Your task to perform on an android device: allow notifications from all sites in the chrome app Image 0: 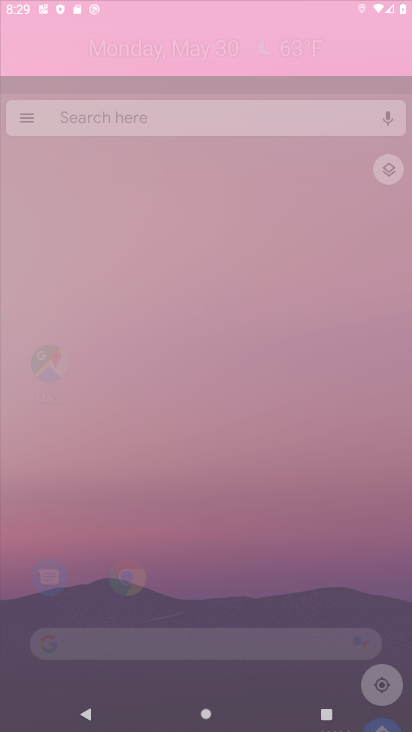
Step 0: click (359, 114)
Your task to perform on an android device: allow notifications from all sites in the chrome app Image 1: 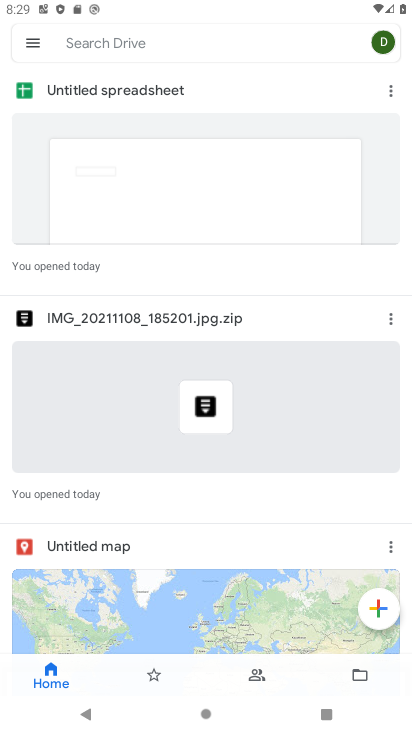
Step 1: press home button
Your task to perform on an android device: allow notifications from all sites in the chrome app Image 2: 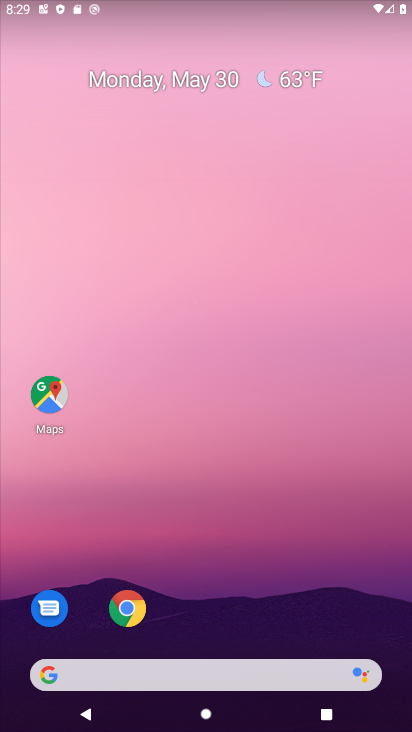
Step 2: click (126, 604)
Your task to perform on an android device: allow notifications from all sites in the chrome app Image 3: 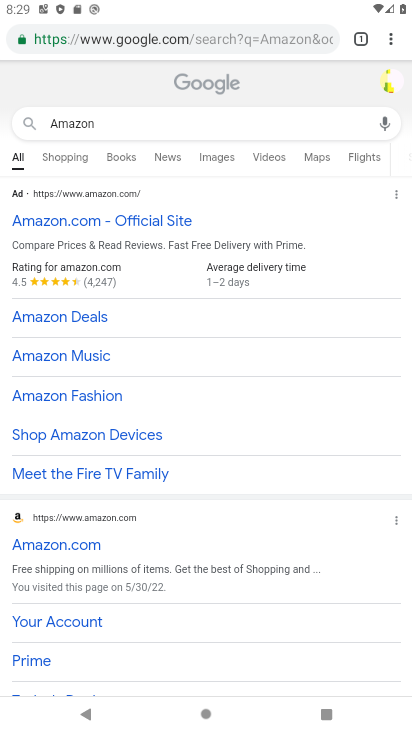
Step 3: click (392, 33)
Your task to perform on an android device: allow notifications from all sites in the chrome app Image 4: 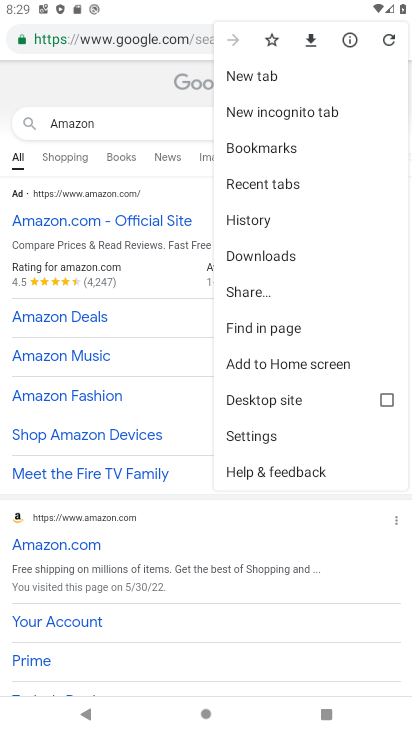
Step 4: click (262, 437)
Your task to perform on an android device: allow notifications from all sites in the chrome app Image 5: 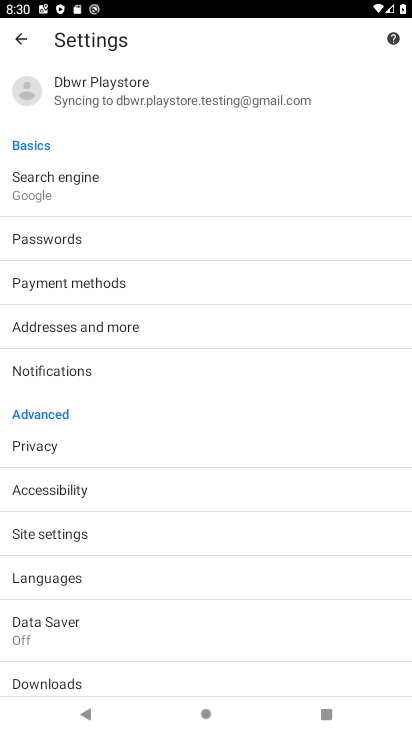
Step 5: drag from (209, 644) to (184, 334)
Your task to perform on an android device: allow notifications from all sites in the chrome app Image 6: 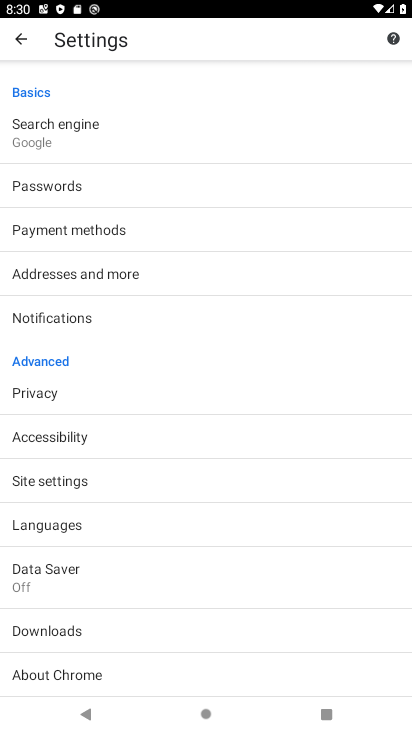
Step 6: drag from (177, 661) to (160, 291)
Your task to perform on an android device: allow notifications from all sites in the chrome app Image 7: 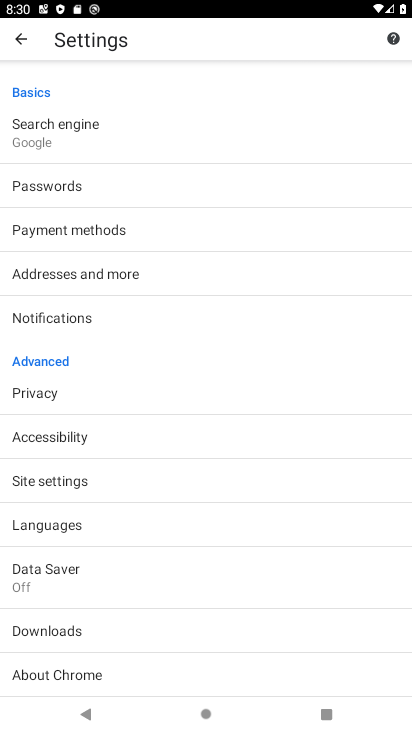
Step 7: drag from (215, 666) to (206, 276)
Your task to perform on an android device: allow notifications from all sites in the chrome app Image 8: 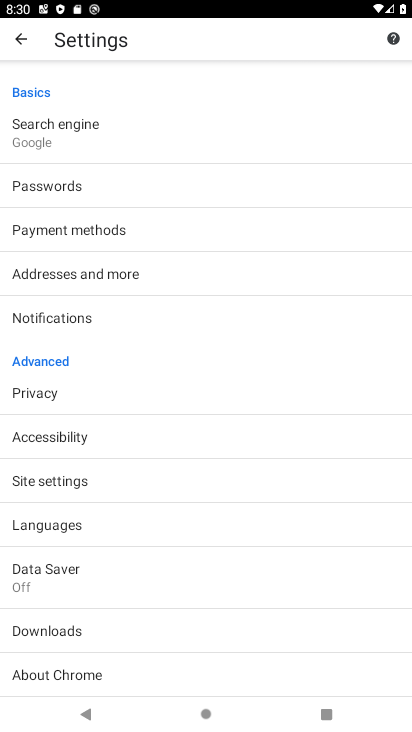
Step 8: drag from (200, 667) to (189, 335)
Your task to perform on an android device: allow notifications from all sites in the chrome app Image 9: 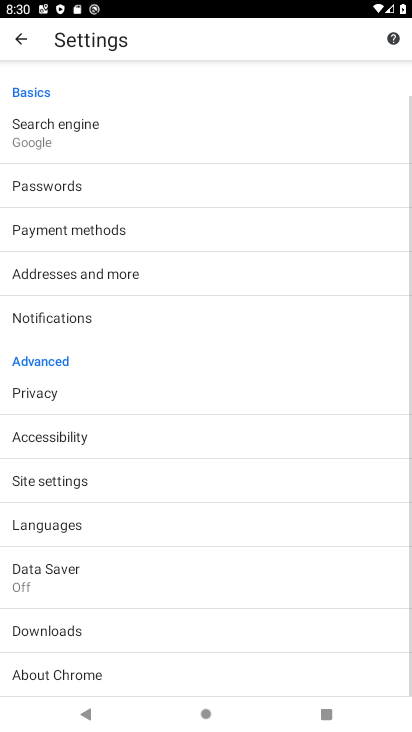
Step 9: click (81, 478)
Your task to perform on an android device: allow notifications from all sites in the chrome app Image 10: 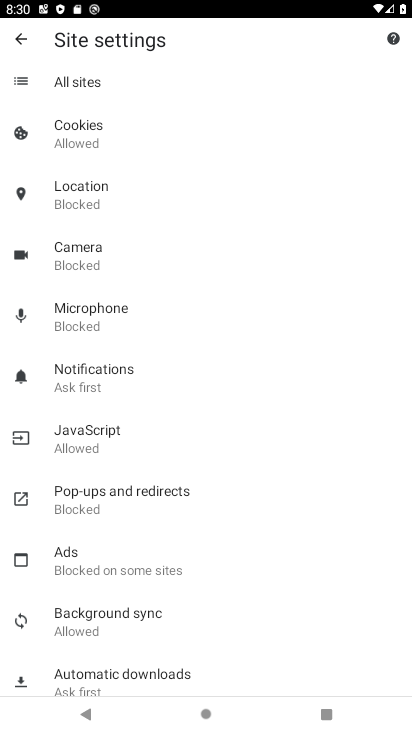
Step 10: click (76, 371)
Your task to perform on an android device: allow notifications from all sites in the chrome app Image 11: 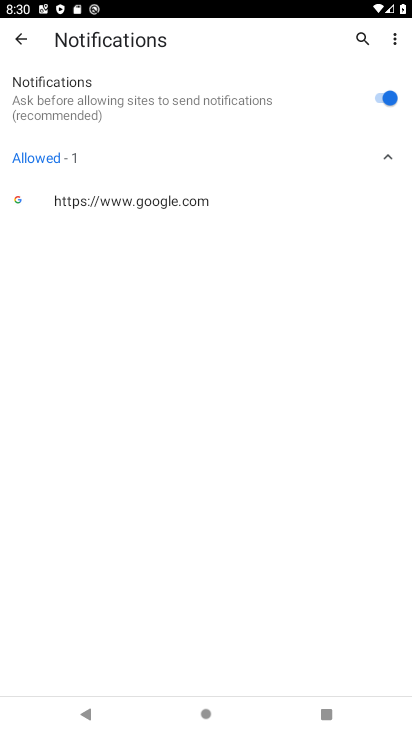
Step 11: task complete